Your task to perform on an android device: stop showing notifications on the lock screen Image 0: 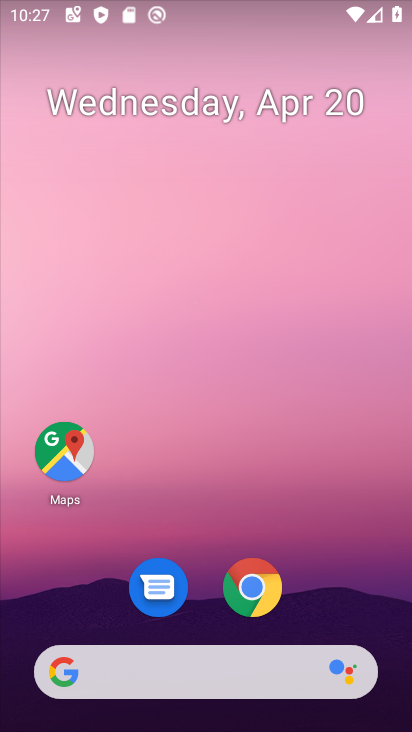
Step 0: drag from (204, 597) to (225, 94)
Your task to perform on an android device: stop showing notifications on the lock screen Image 1: 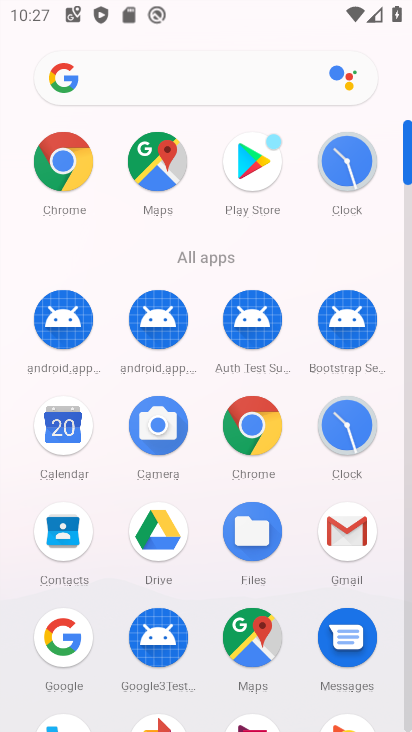
Step 1: drag from (208, 693) to (247, 191)
Your task to perform on an android device: stop showing notifications on the lock screen Image 2: 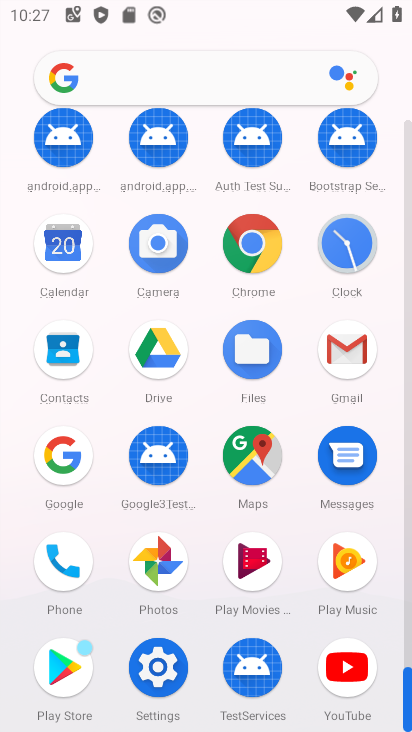
Step 2: click (155, 659)
Your task to perform on an android device: stop showing notifications on the lock screen Image 3: 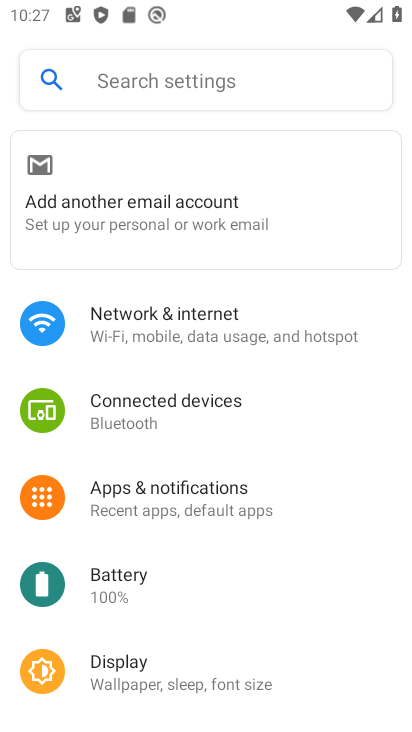
Step 3: click (256, 494)
Your task to perform on an android device: stop showing notifications on the lock screen Image 4: 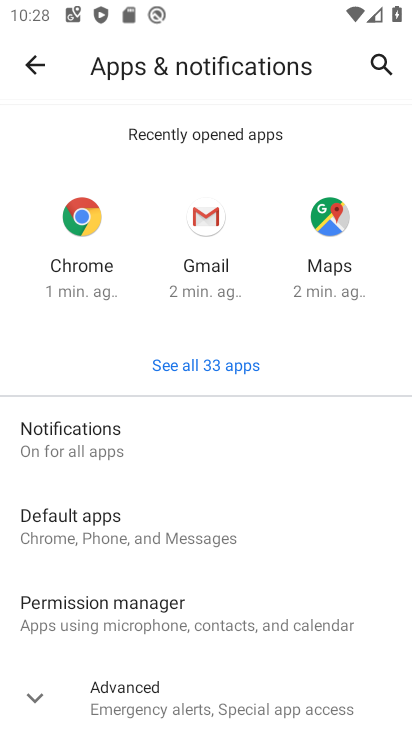
Step 4: click (124, 435)
Your task to perform on an android device: stop showing notifications on the lock screen Image 5: 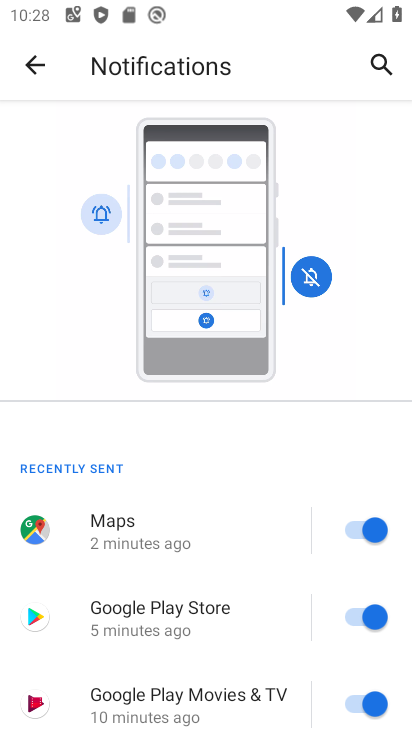
Step 5: drag from (263, 650) to (270, 285)
Your task to perform on an android device: stop showing notifications on the lock screen Image 6: 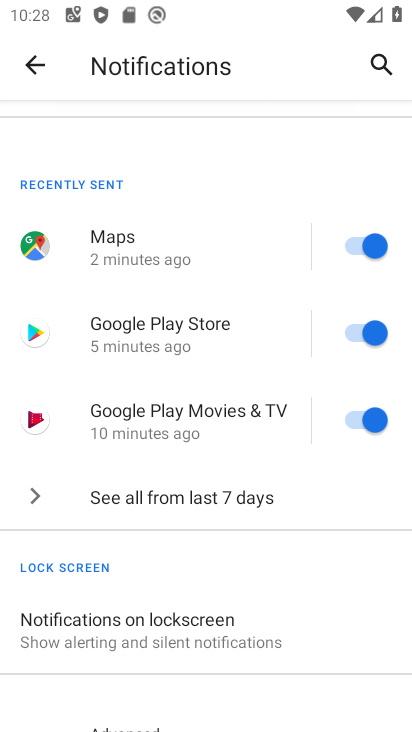
Step 6: click (242, 624)
Your task to perform on an android device: stop showing notifications on the lock screen Image 7: 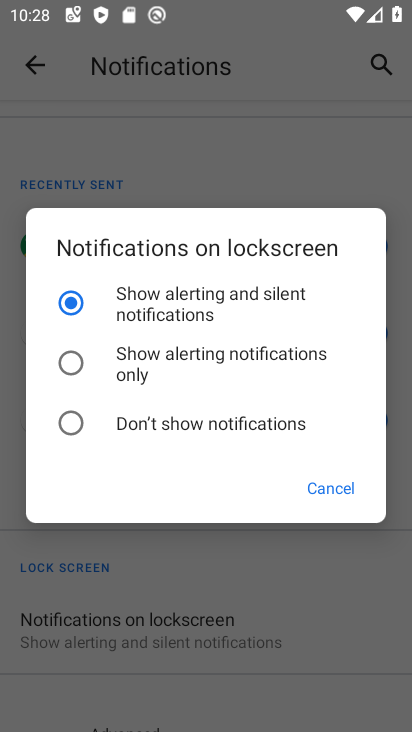
Step 7: click (70, 419)
Your task to perform on an android device: stop showing notifications on the lock screen Image 8: 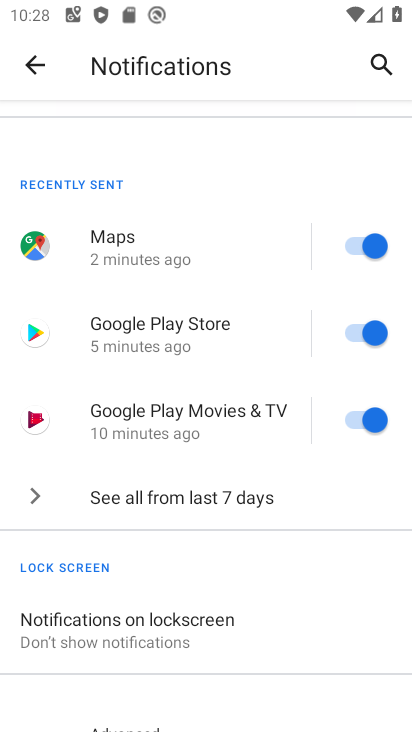
Step 8: task complete